Your task to perform on an android device: Search for "logitech g pro" on walmart.com, select the first entry, and add it to the cart. Image 0: 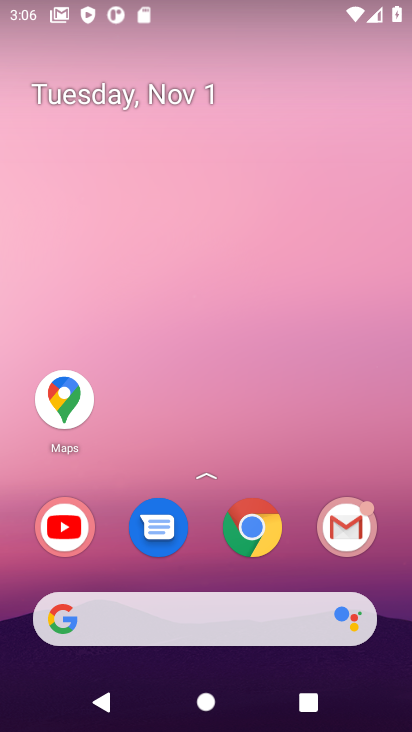
Step 0: click (189, 635)
Your task to perform on an android device: Search for "logitech g pro" on walmart.com, select the first entry, and add it to the cart. Image 1: 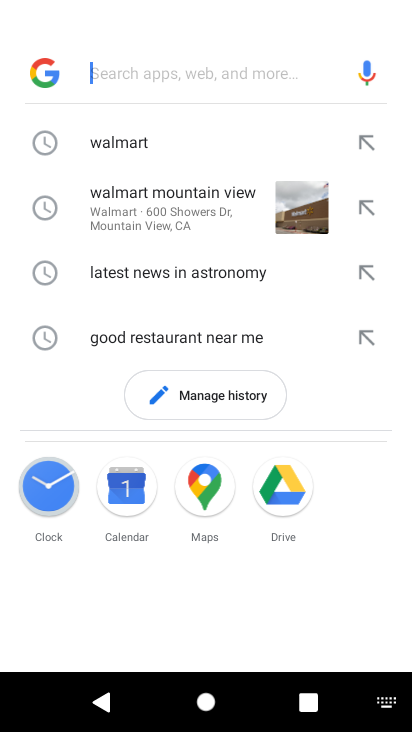
Step 1: type "logitech g pro"
Your task to perform on an android device: Search for "logitech g pro" on walmart.com, select the first entry, and add it to the cart. Image 2: 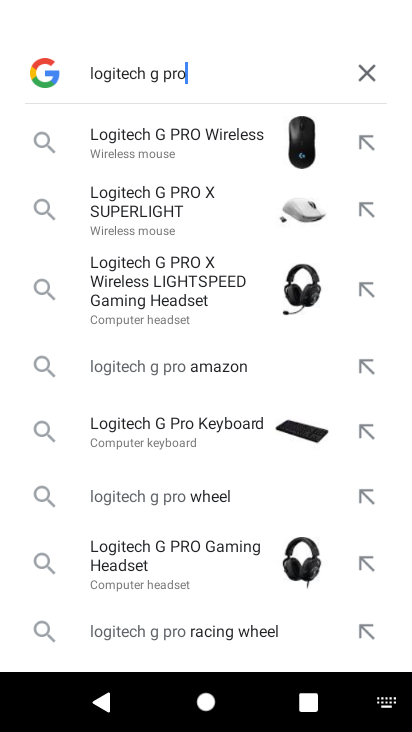
Step 2: click (371, 82)
Your task to perform on an android device: Search for "logitech g pro" on walmart.com, select the first entry, and add it to the cart. Image 3: 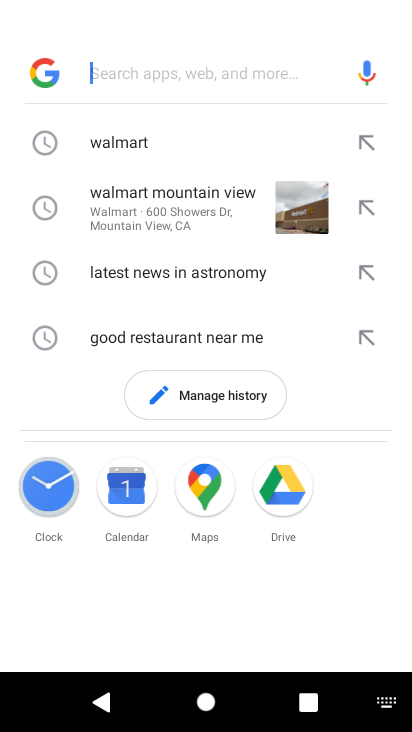
Step 3: type "walmart.com"
Your task to perform on an android device: Search for "logitech g pro" on walmart.com, select the first entry, and add it to the cart. Image 4: 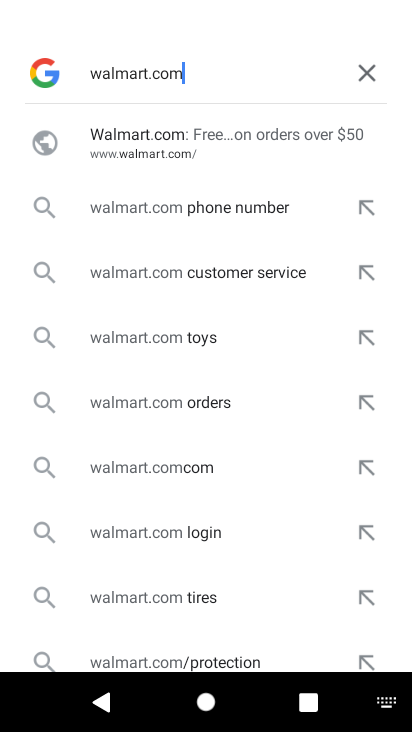
Step 4: click (187, 151)
Your task to perform on an android device: Search for "logitech g pro" on walmart.com, select the first entry, and add it to the cart. Image 5: 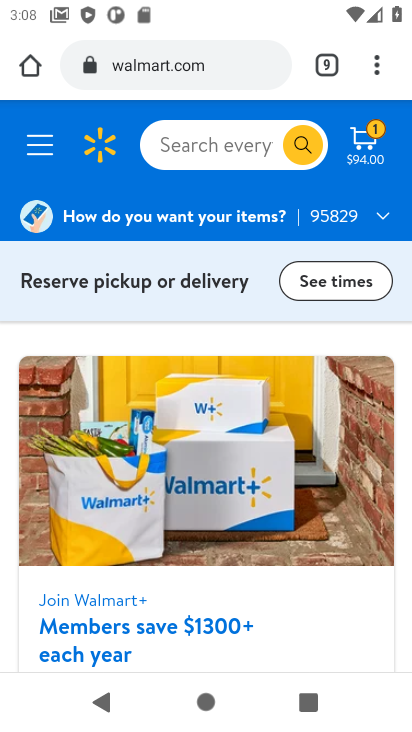
Step 5: click (199, 130)
Your task to perform on an android device: Search for "logitech g pro" on walmart.com, select the first entry, and add it to the cart. Image 6: 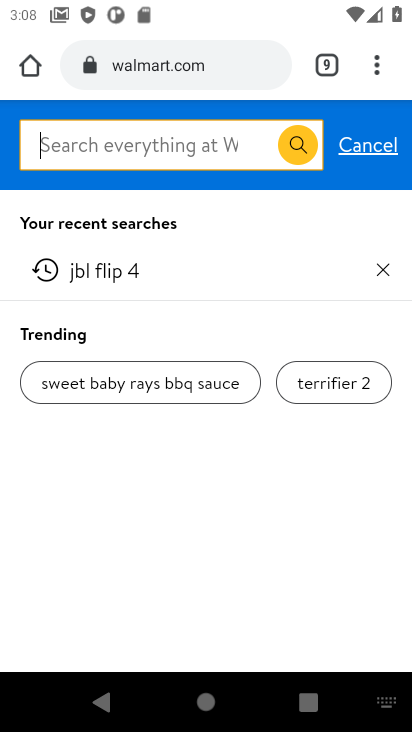
Step 6: type "logitech g pro"
Your task to perform on an android device: Search for "logitech g pro" on walmart.com, select the first entry, and add it to the cart. Image 7: 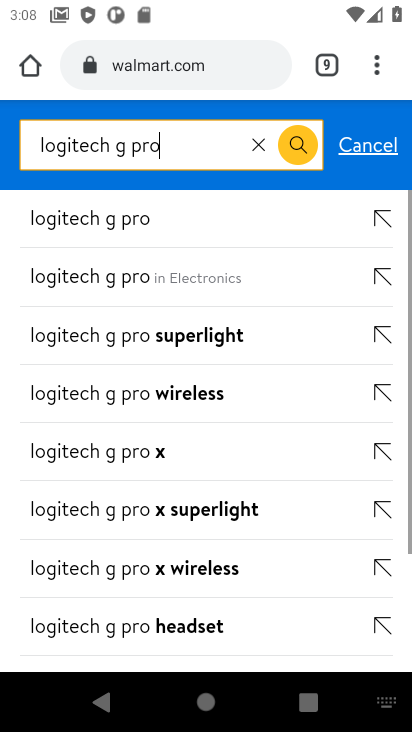
Step 7: click (113, 221)
Your task to perform on an android device: Search for "logitech g pro" on walmart.com, select the first entry, and add it to the cart. Image 8: 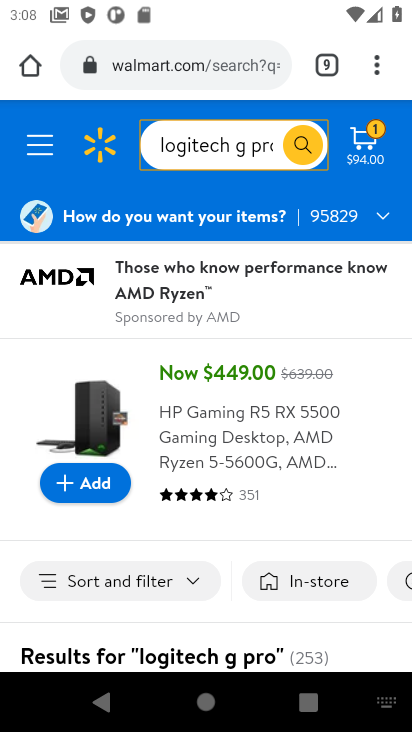
Step 8: click (211, 370)
Your task to perform on an android device: Search for "logitech g pro" on walmart.com, select the first entry, and add it to the cart. Image 9: 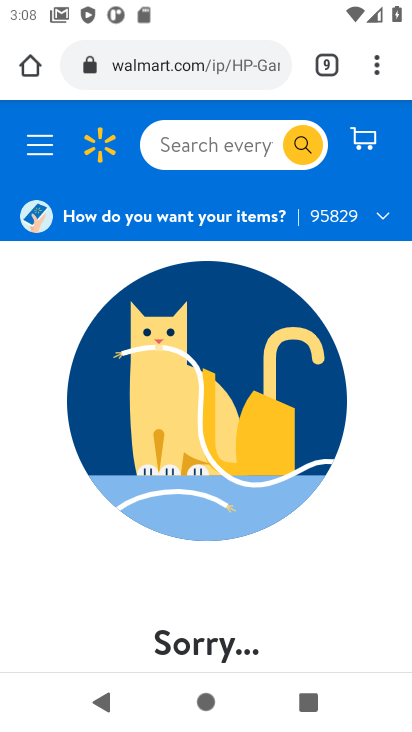
Step 9: task complete